Your task to perform on an android device: open app "LiveIn - Share Your Moment" Image 0: 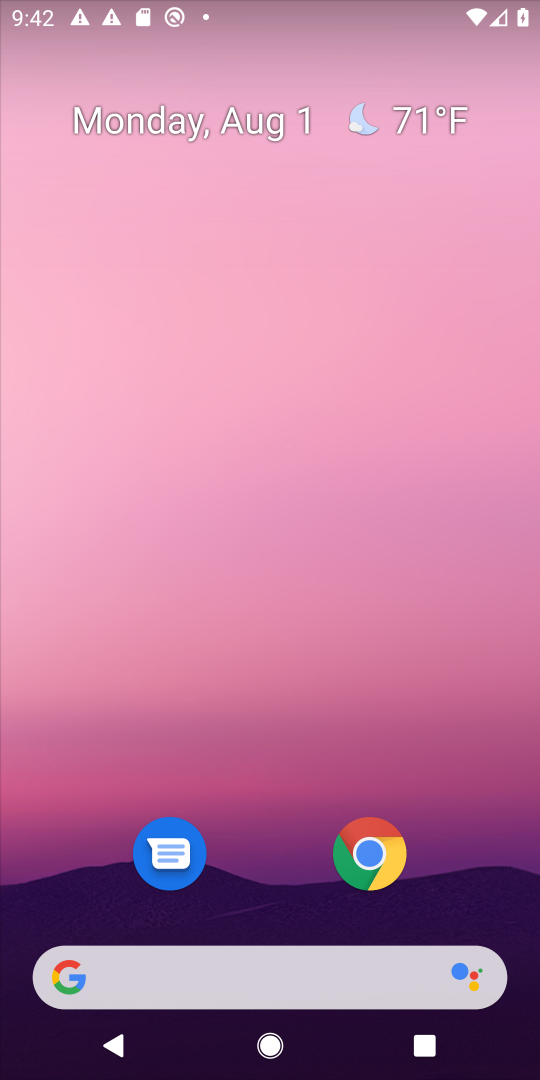
Step 0: drag from (296, 917) to (46, 207)
Your task to perform on an android device: open app "LiveIn - Share Your Moment" Image 1: 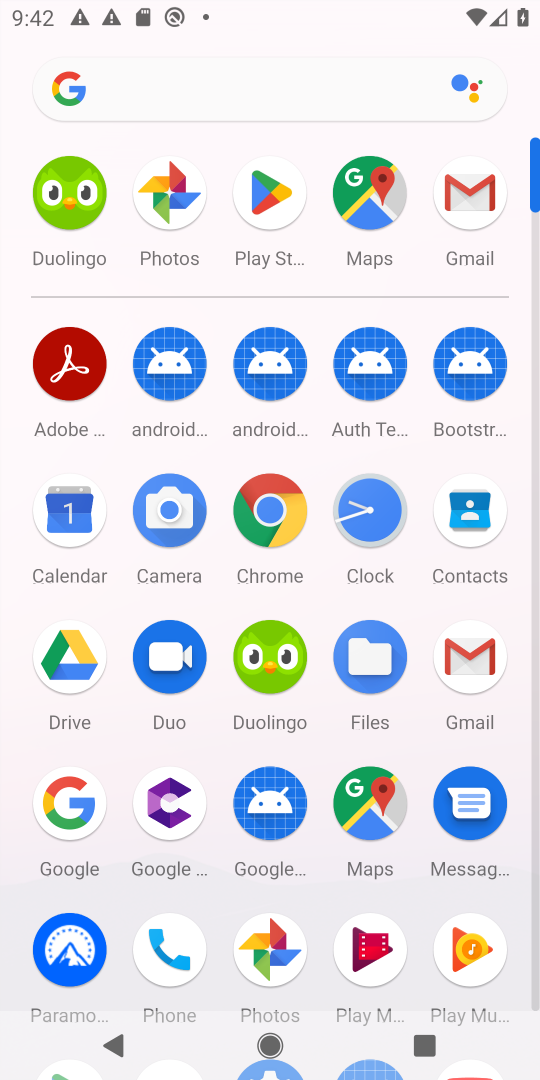
Step 1: click (263, 195)
Your task to perform on an android device: open app "LiveIn - Share Your Moment" Image 2: 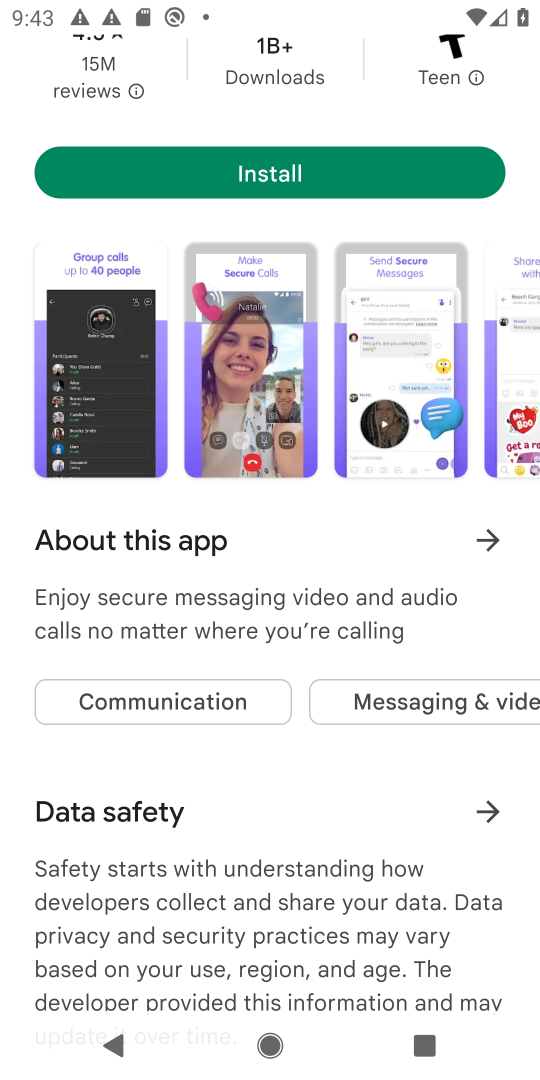
Step 2: drag from (330, 230) to (347, 1067)
Your task to perform on an android device: open app "LiveIn - Share Your Moment" Image 3: 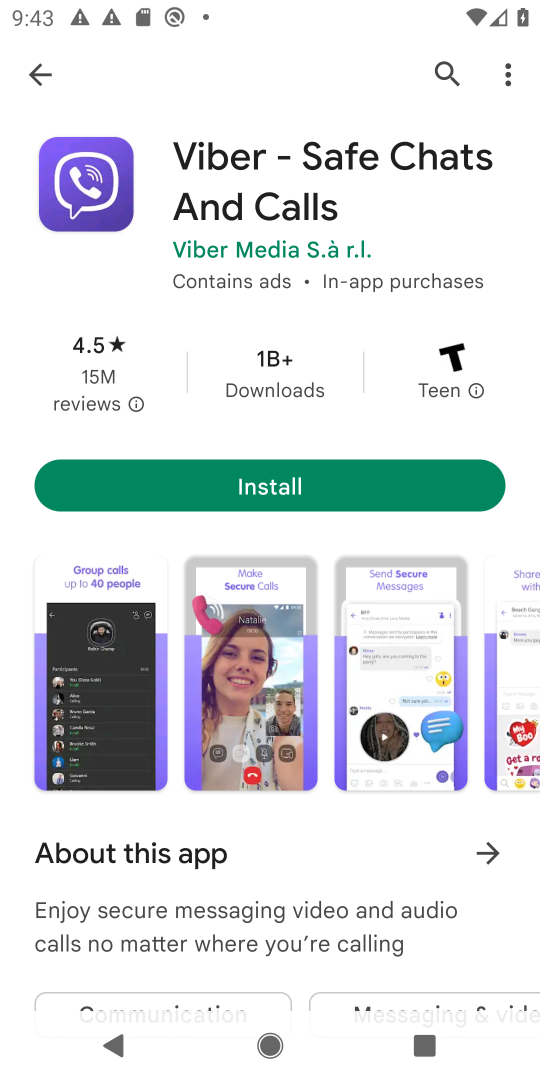
Step 3: click (443, 74)
Your task to perform on an android device: open app "LiveIn - Share Your Moment" Image 4: 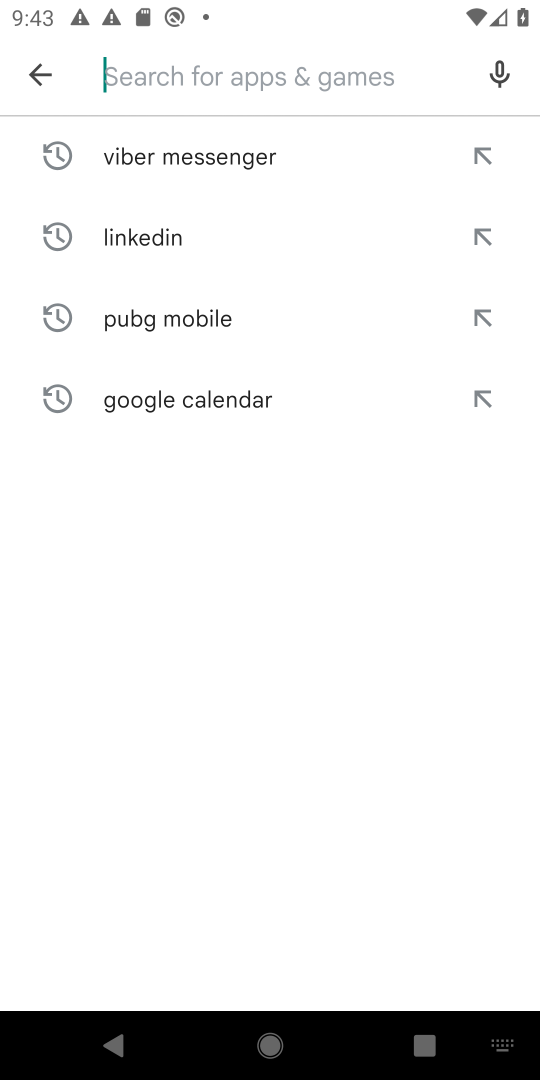
Step 4: type "LiveIn - Share Your Moment"
Your task to perform on an android device: open app "LiveIn - Share Your Moment" Image 5: 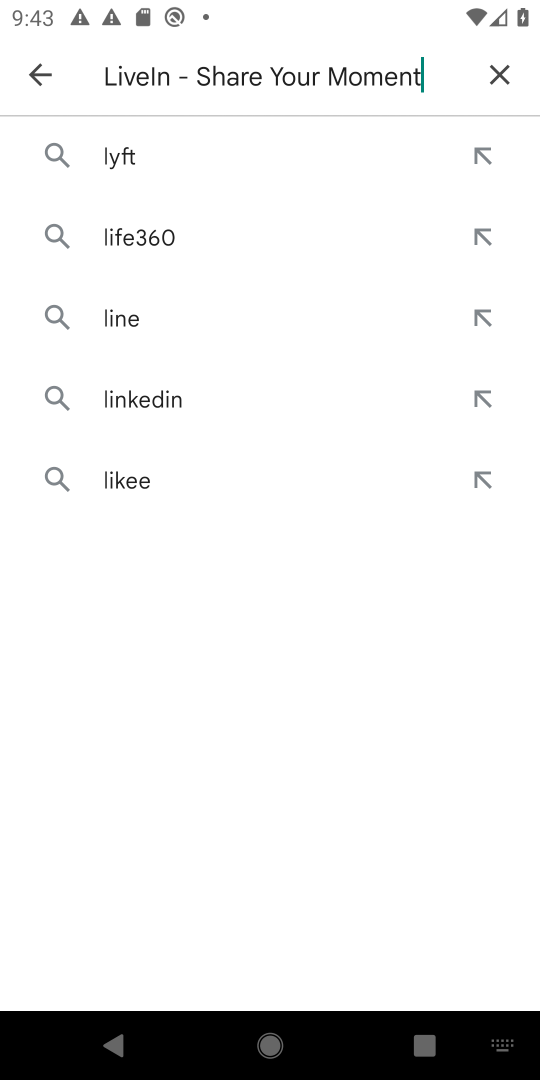
Step 5: type ""
Your task to perform on an android device: open app "LiveIn - Share Your Moment" Image 6: 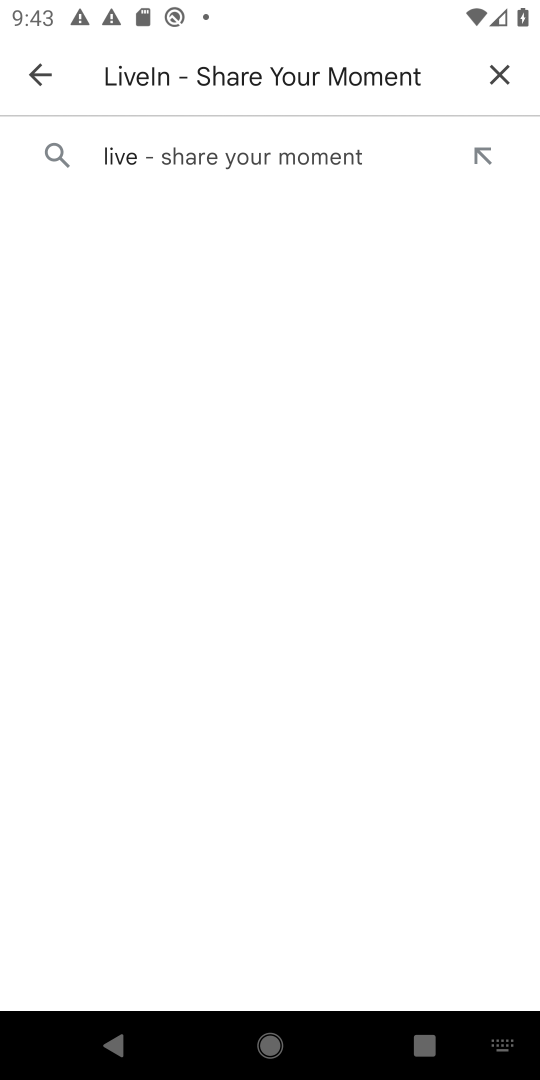
Step 6: click (161, 153)
Your task to perform on an android device: open app "LiveIn - Share Your Moment" Image 7: 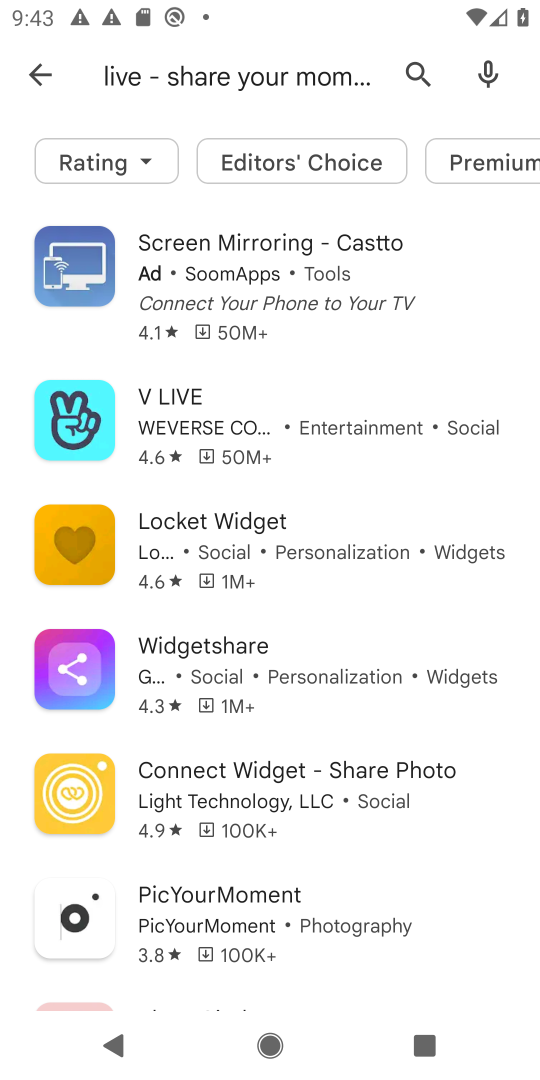
Step 7: task complete